Your task to perform on an android device: Open Youtube and go to the subscriptions tab Image 0: 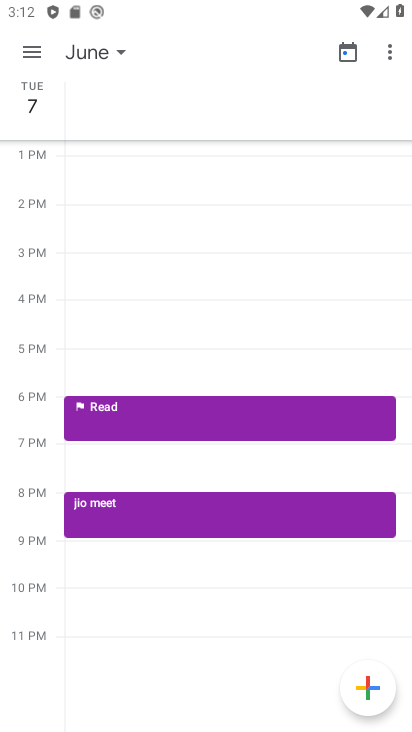
Step 0: press home button
Your task to perform on an android device: Open Youtube and go to the subscriptions tab Image 1: 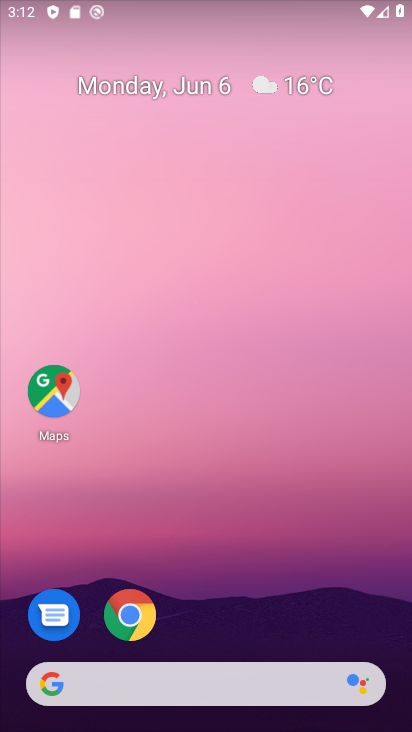
Step 1: drag from (400, 652) to (320, 75)
Your task to perform on an android device: Open Youtube and go to the subscriptions tab Image 2: 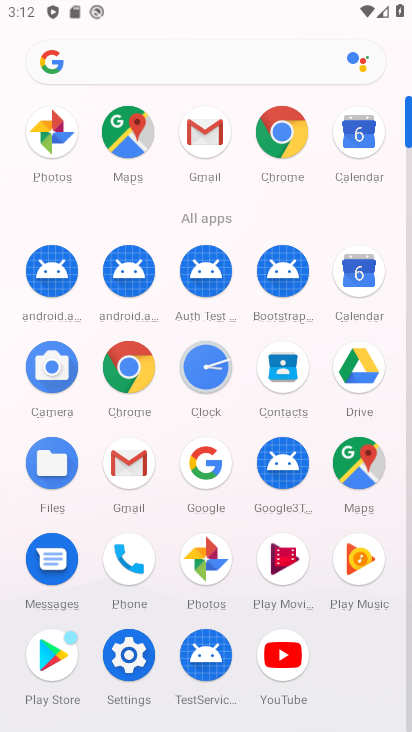
Step 2: click (407, 682)
Your task to perform on an android device: Open Youtube and go to the subscriptions tab Image 3: 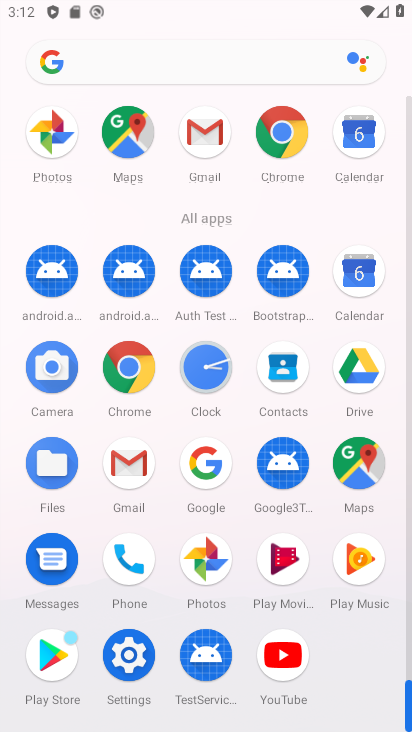
Step 3: click (278, 652)
Your task to perform on an android device: Open Youtube and go to the subscriptions tab Image 4: 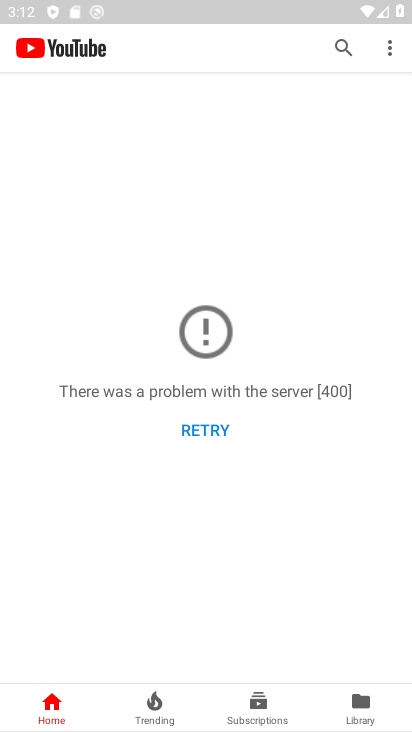
Step 4: click (265, 700)
Your task to perform on an android device: Open Youtube and go to the subscriptions tab Image 5: 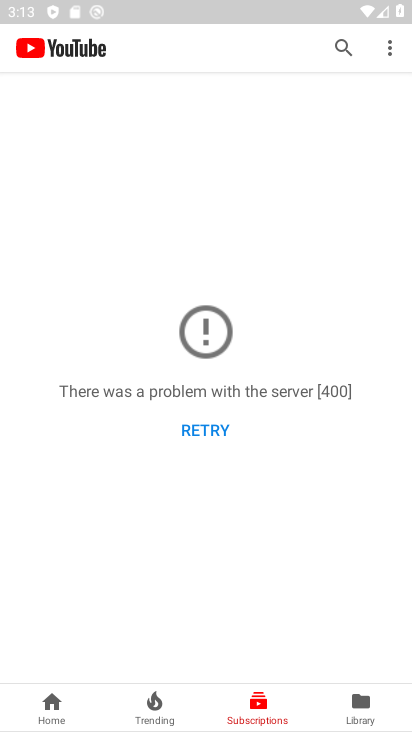
Step 5: click (197, 428)
Your task to perform on an android device: Open Youtube and go to the subscriptions tab Image 6: 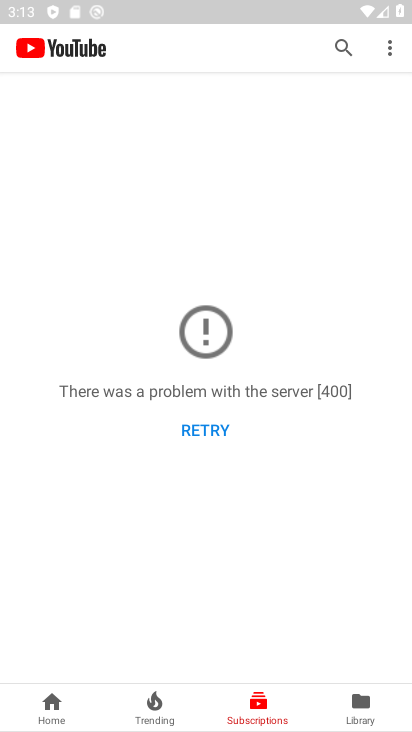
Step 6: task complete